Your task to perform on an android device: See recent photos Image 0: 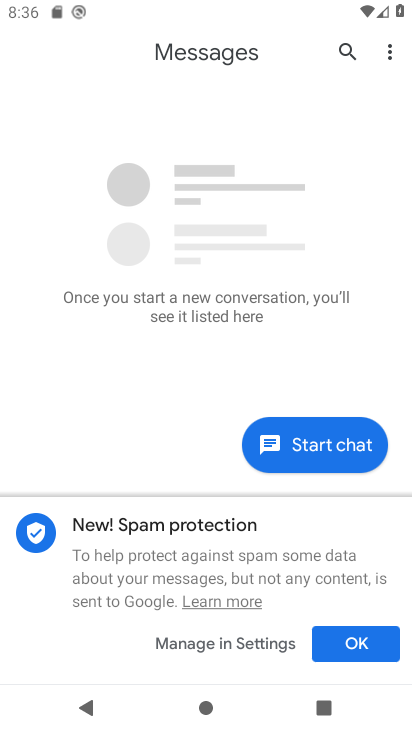
Step 0: press home button
Your task to perform on an android device: See recent photos Image 1: 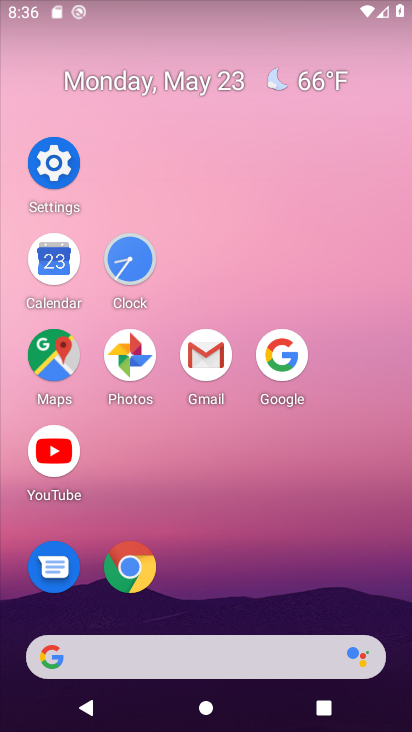
Step 1: click (133, 350)
Your task to perform on an android device: See recent photos Image 2: 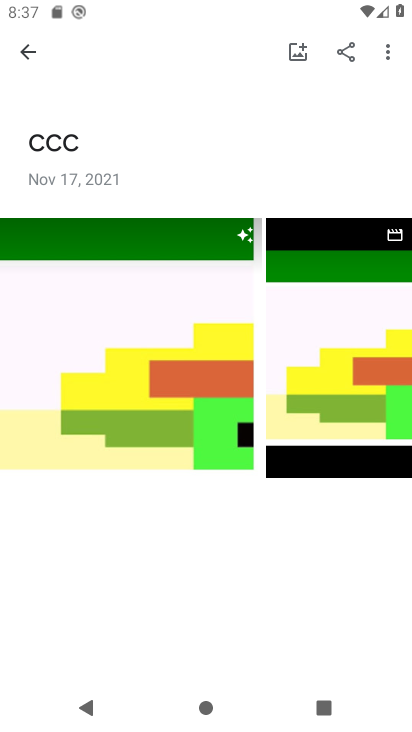
Step 2: task complete